Your task to perform on an android device: Clear the cart on costco.com. Search for razer blade on costco.com, select the first entry, and add it to the cart. Image 0: 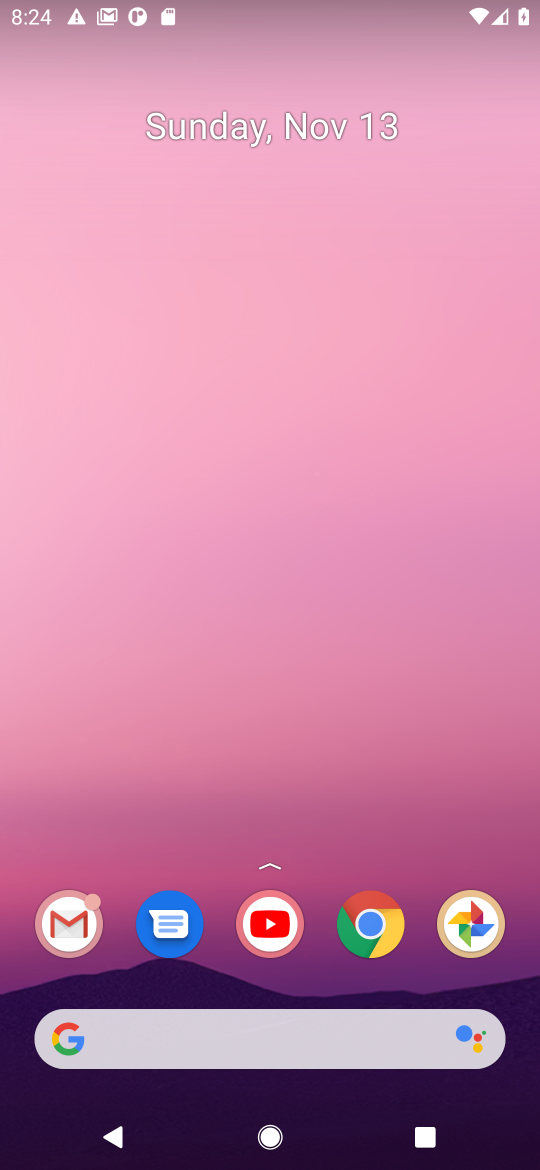
Step 0: click (378, 923)
Your task to perform on an android device: Clear the cart on costco.com. Search for razer blade on costco.com, select the first entry, and add it to the cart. Image 1: 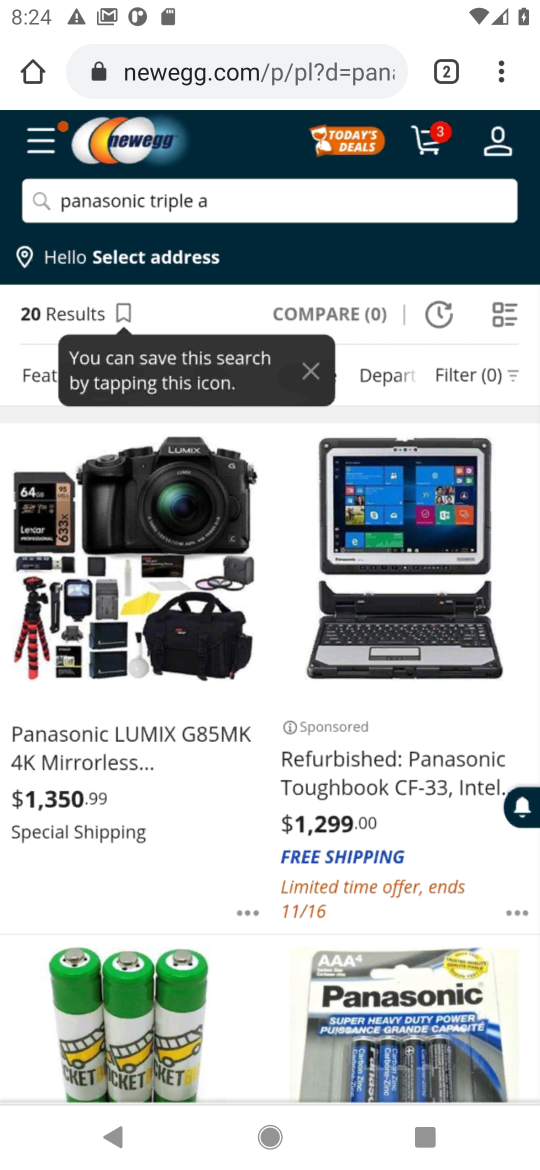
Step 1: click (253, 78)
Your task to perform on an android device: Clear the cart on costco.com. Search for razer blade on costco.com, select the first entry, and add it to the cart. Image 2: 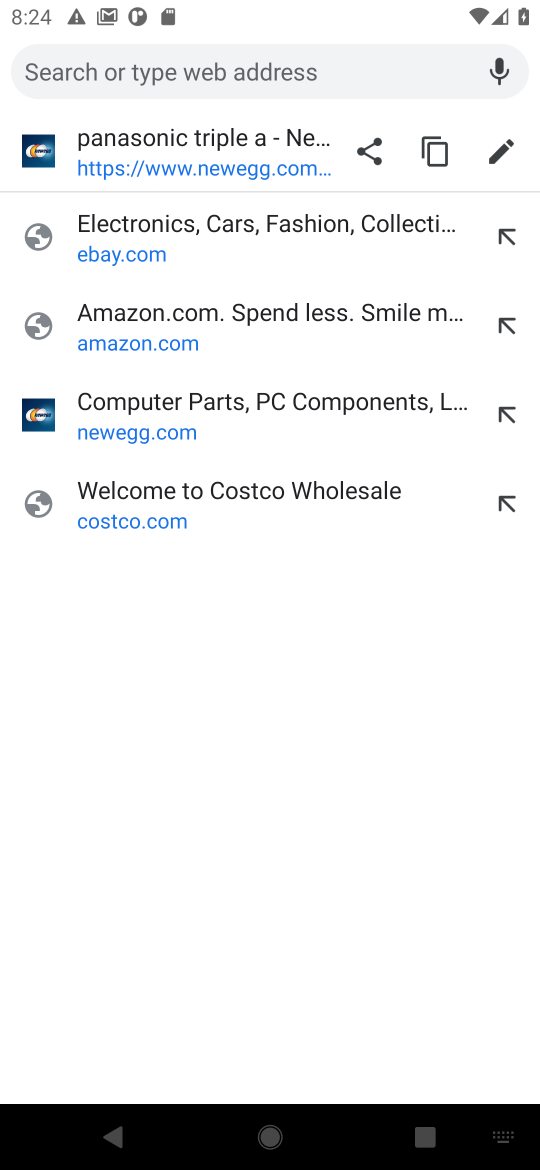
Step 2: click (134, 505)
Your task to perform on an android device: Clear the cart on costco.com. Search for razer blade on costco.com, select the first entry, and add it to the cart. Image 3: 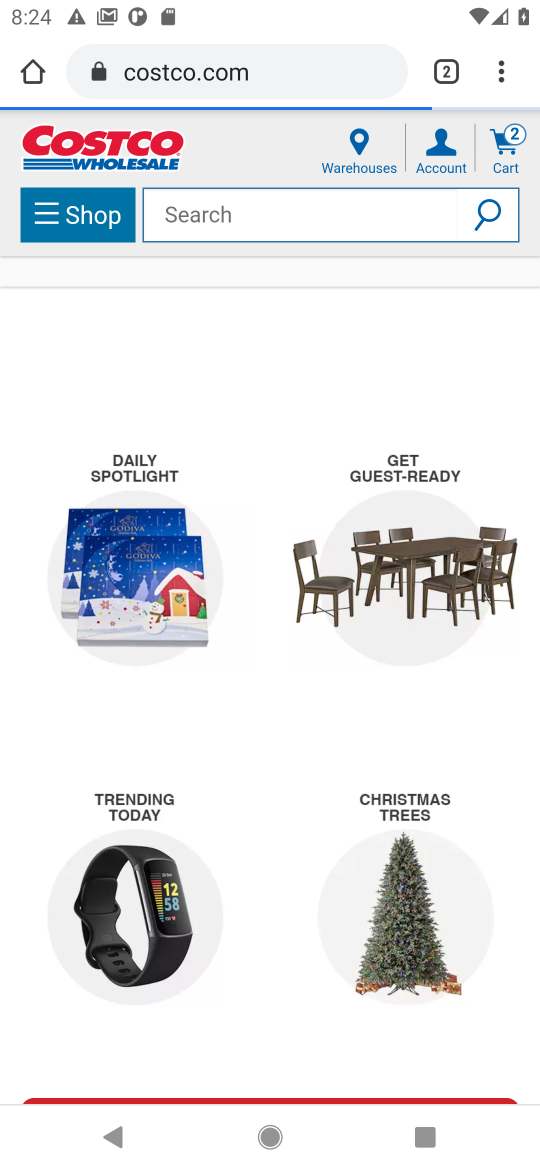
Step 3: click (505, 147)
Your task to perform on an android device: Clear the cart on costco.com. Search for razer blade on costco.com, select the first entry, and add it to the cart. Image 4: 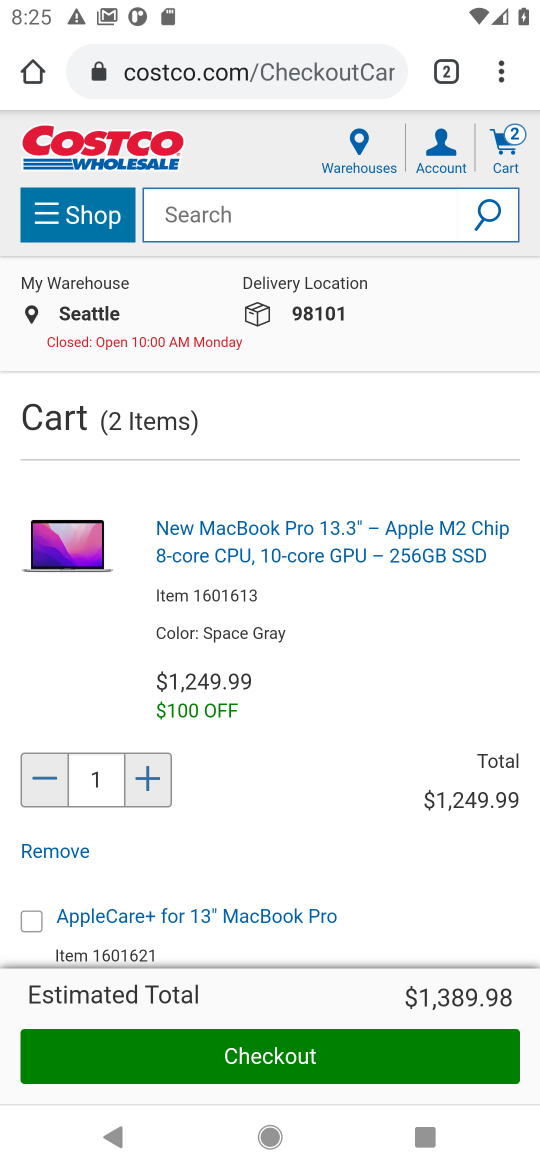
Step 4: click (43, 856)
Your task to perform on an android device: Clear the cart on costco.com. Search for razer blade on costco.com, select the first entry, and add it to the cart. Image 5: 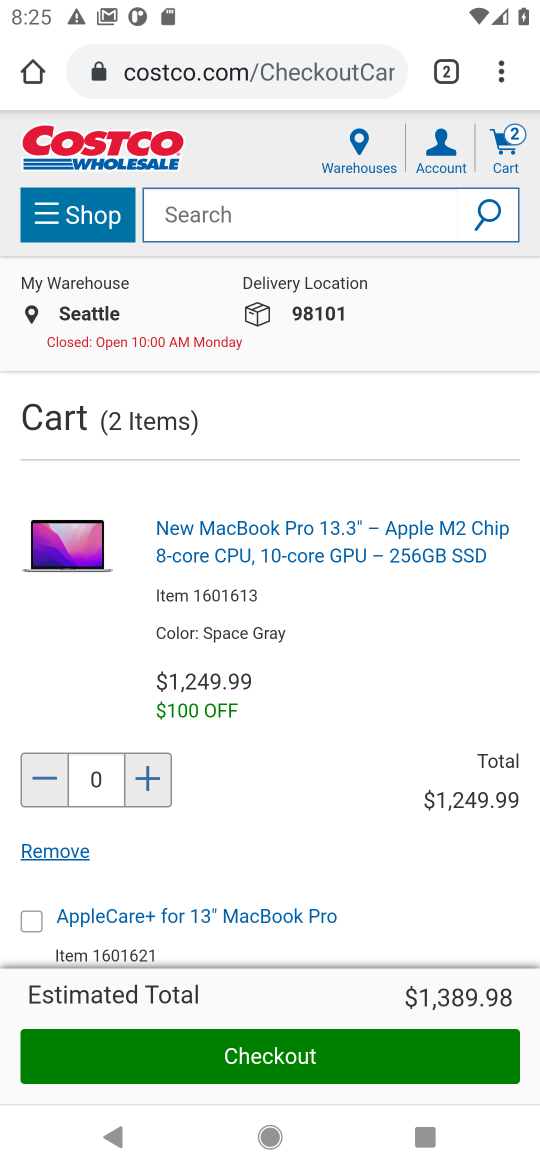
Step 5: drag from (200, 859) to (268, 229)
Your task to perform on an android device: Clear the cart on costco.com. Search for razer blade on costco.com, select the first entry, and add it to the cart. Image 6: 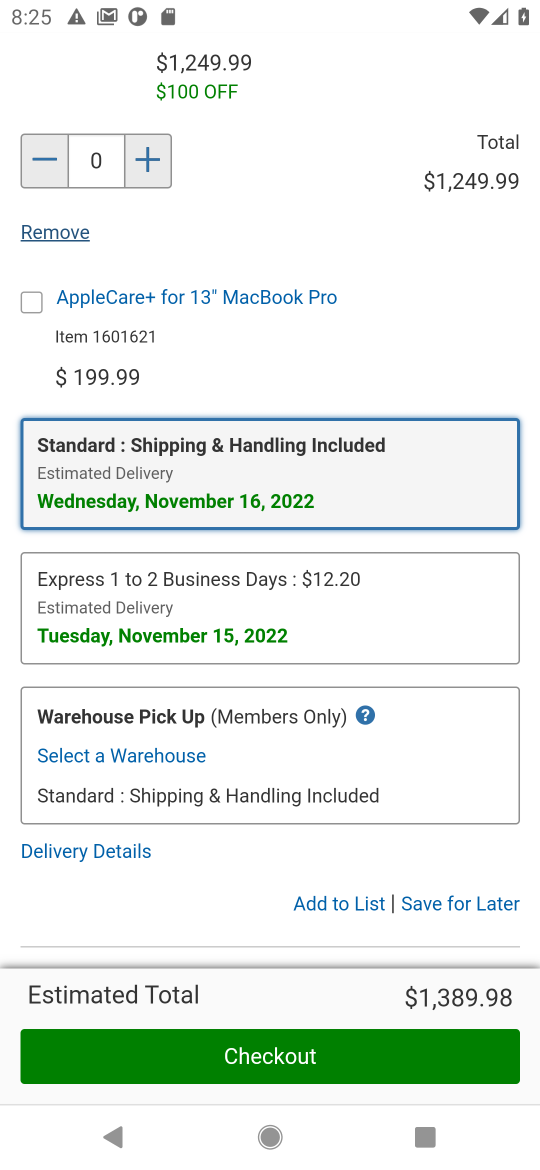
Step 6: drag from (286, 730) to (293, 418)
Your task to perform on an android device: Clear the cart on costco.com. Search for razer blade on costco.com, select the first entry, and add it to the cart. Image 7: 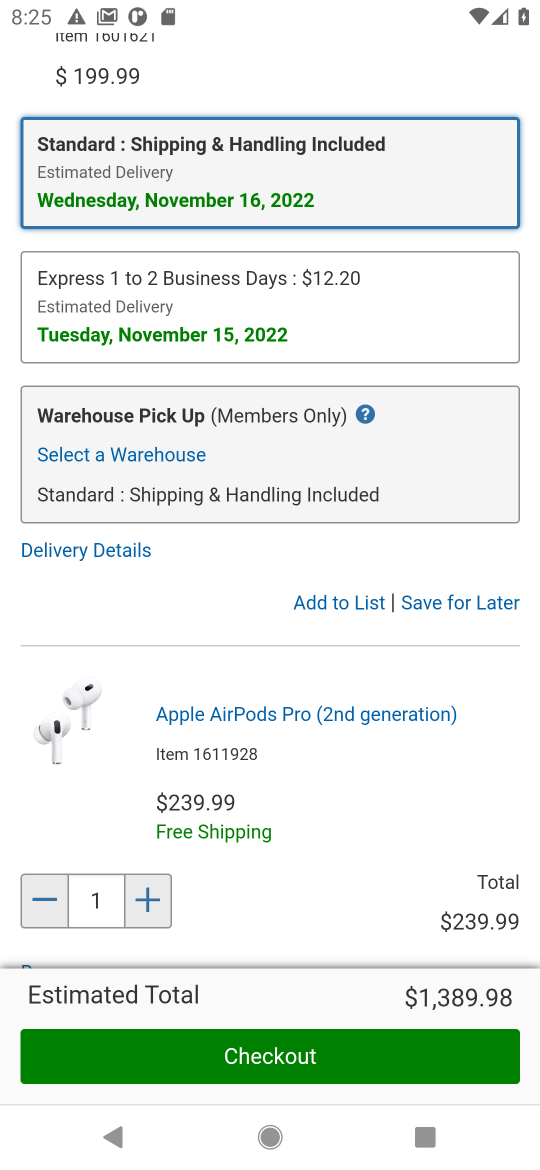
Step 7: click (463, 606)
Your task to perform on an android device: Clear the cart on costco.com. Search for razer blade on costco.com, select the first entry, and add it to the cart. Image 8: 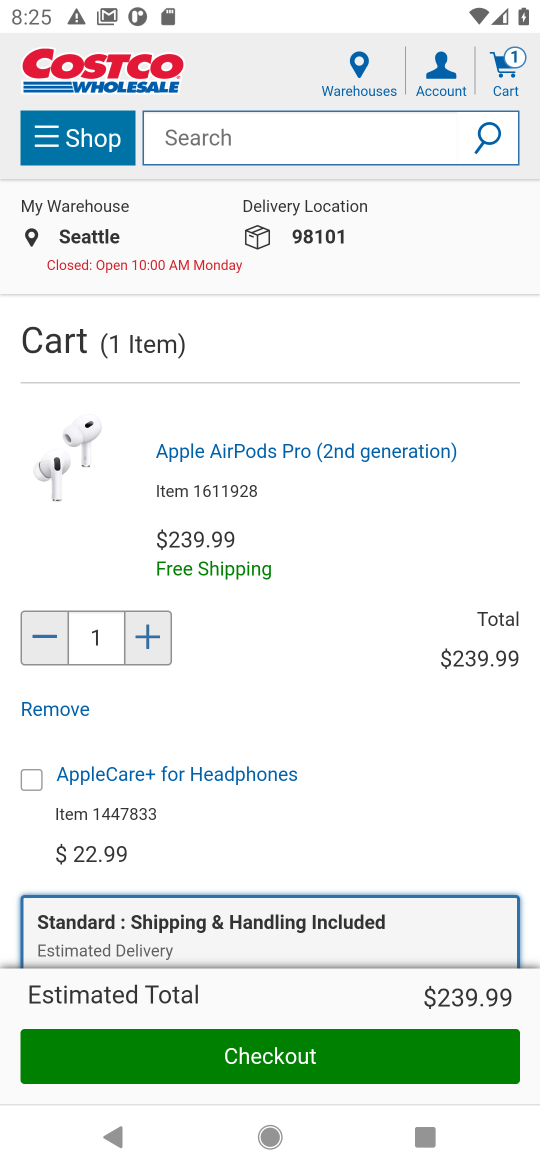
Step 8: drag from (377, 778) to (340, 335)
Your task to perform on an android device: Clear the cart on costco.com. Search for razer blade on costco.com, select the first entry, and add it to the cart. Image 9: 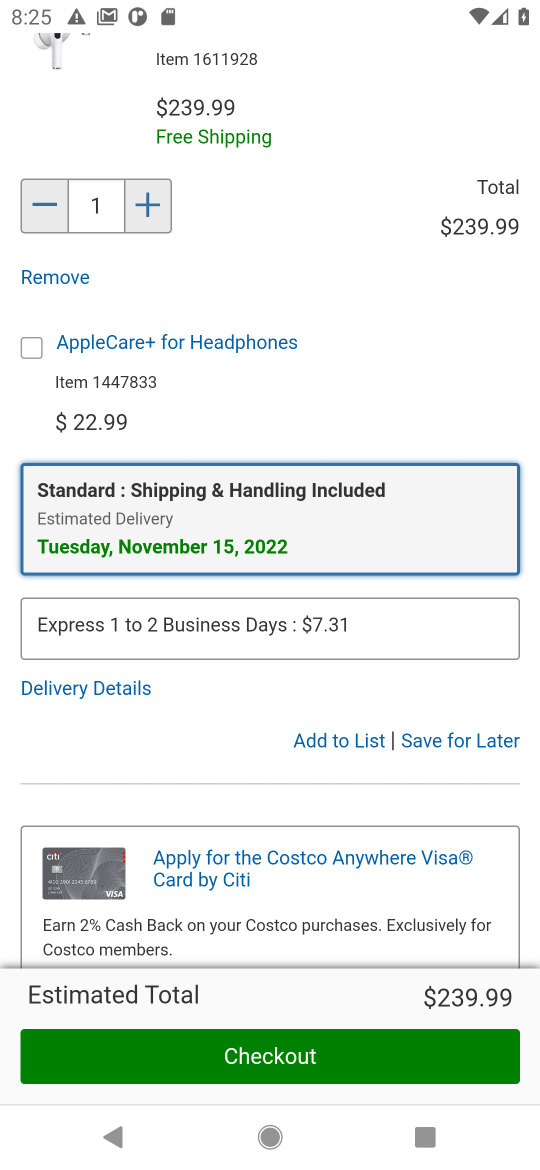
Step 9: click (459, 747)
Your task to perform on an android device: Clear the cart on costco.com. Search for razer blade on costco.com, select the first entry, and add it to the cart. Image 10: 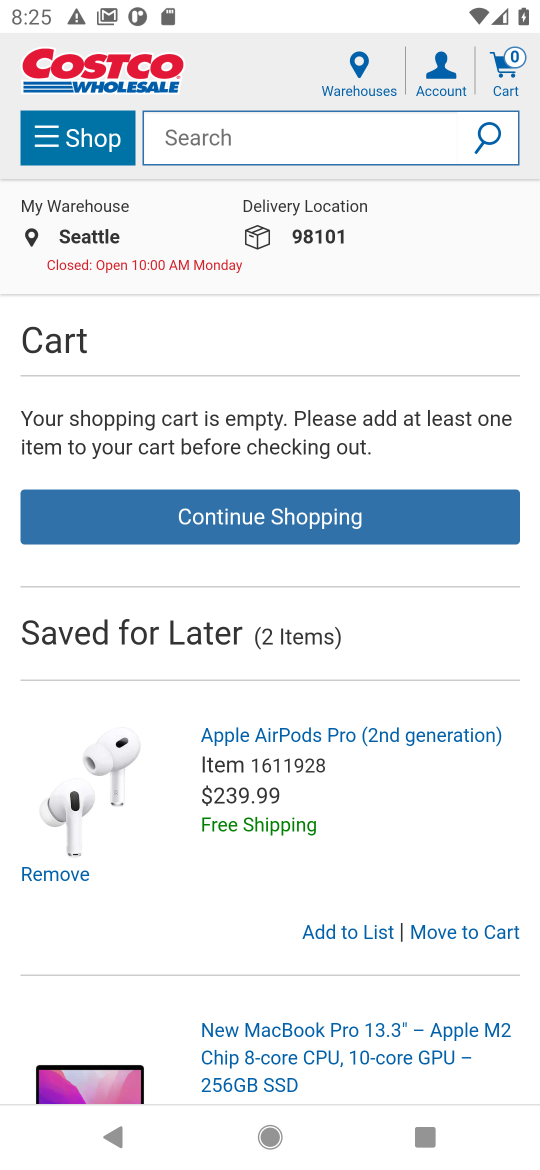
Step 10: click (254, 145)
Your task to perform on an android device: Clear the cart on costco.com. Search for razer blade on costco.com, select the first entry, and add it to the cart. Image 11: 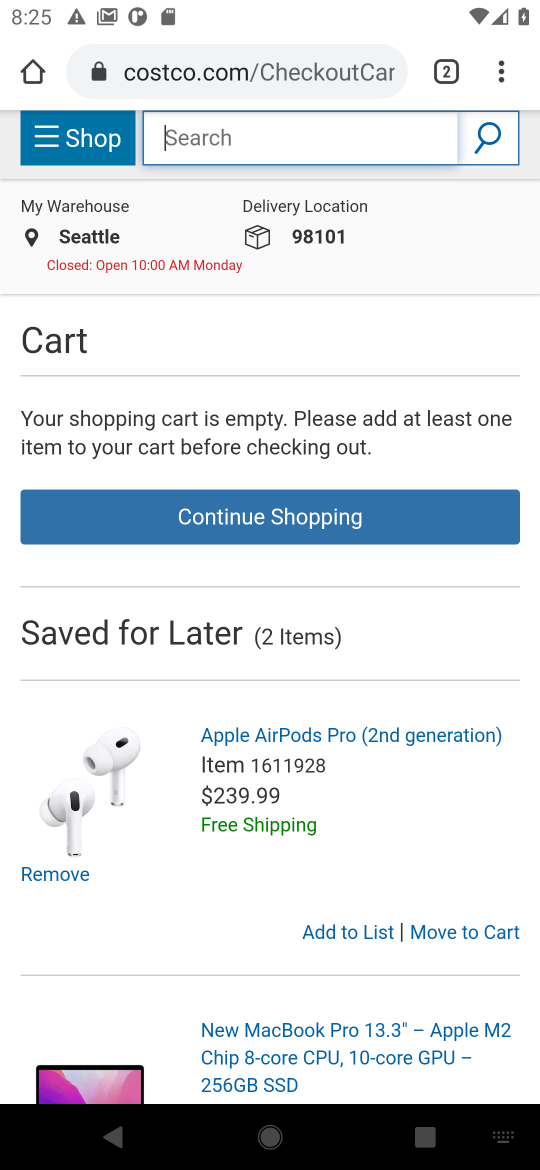
Step 11: type "razer blade"
Your task to perform on an android device: Clear the cart on costco.com. Search for razer blade on costco.com, select the first entry, and add it to the cart. Image 12: 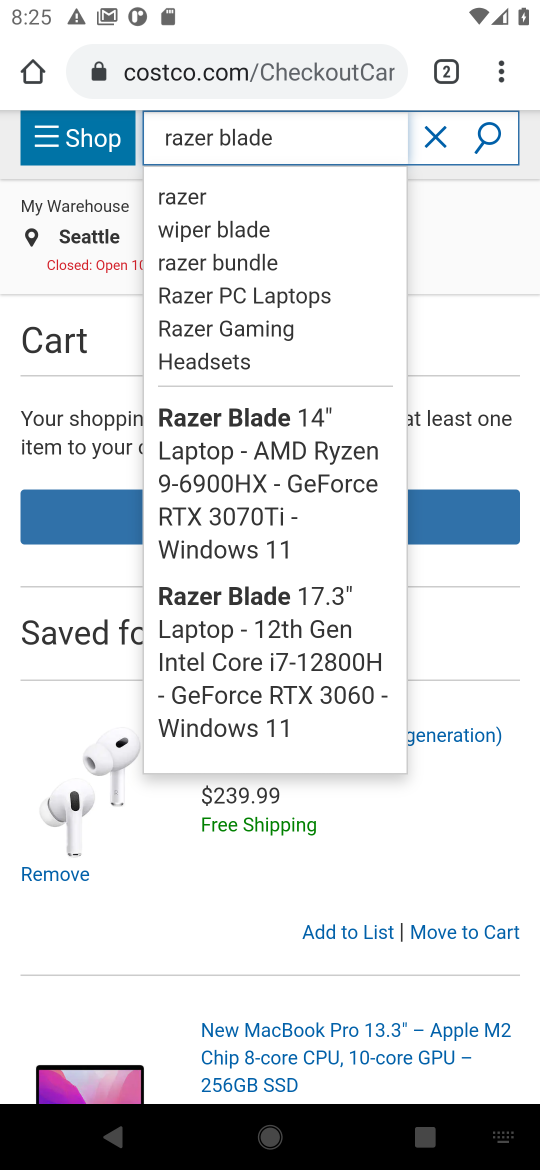
Step 12: click (486, 143)
Your task to perform on an android device: Clear the cart on costco.com. Search for razer blade on costco.com, select the first entry, and add it to the cart. Image 13: 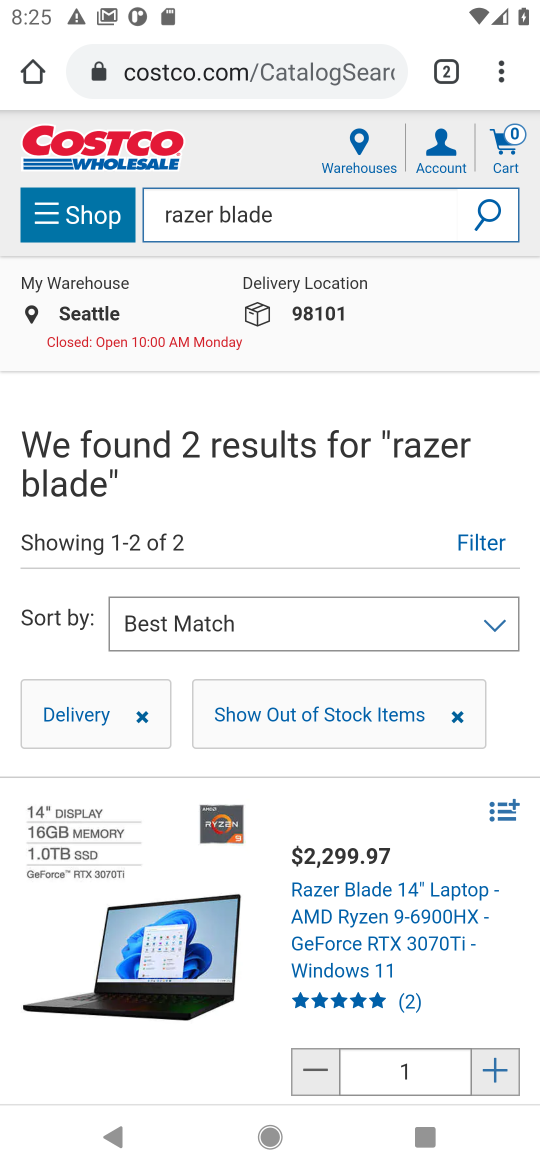
Step 13: click (193, 938)
Your task to perform on an android device: Clear the cart on costco.com. Search for razer blade on costco.com, select the first entry, and add it to the cart. Image 14: 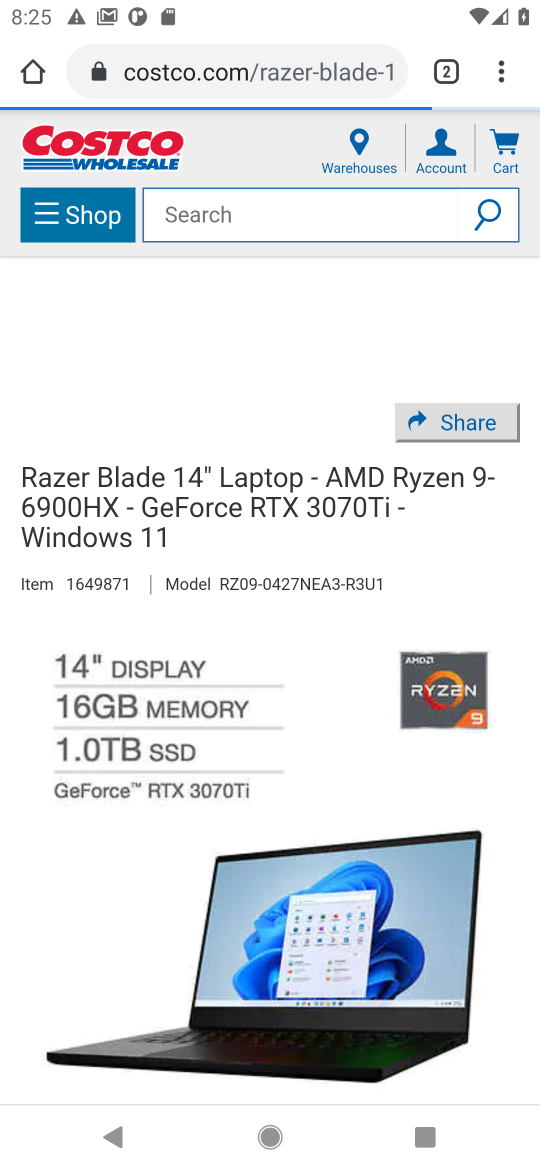
Step 14: drag from (193, 935) to (204, 430)
Your task to perform on an android device: Clear the cart on costco.com. Search for razer blade on costco.com, select the first entry, and add it to the cart. Image 15: 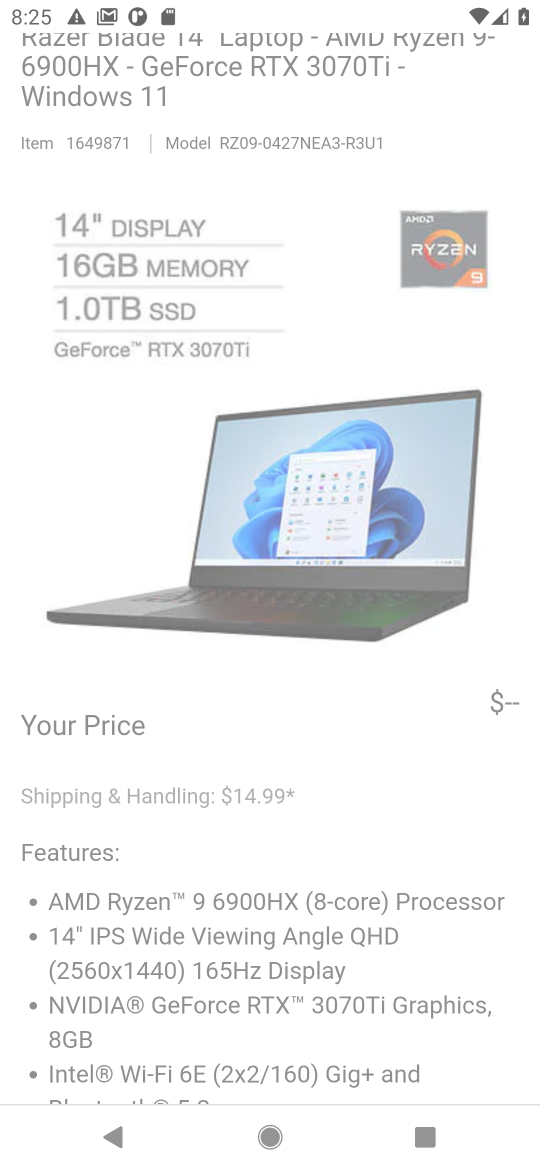
Step 15: drag from (222, 908) to (197, 417)
Your task to perform on an android device: Clear the cart on costco.com. Search for razer blade on costco.com, select the first entry, and add it to the cart. Image 16: 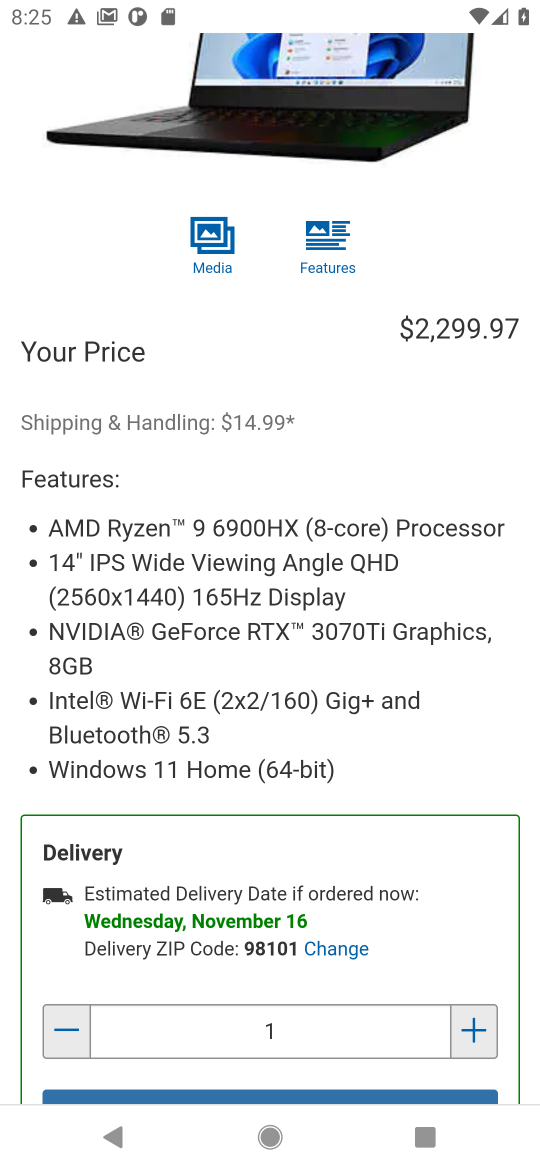
Step 16: drag from (246, 1000) to (250, 645)
Your task to perform on an android device: Clear the cart on costco.com. Search for razer blade on costco.com, select the first entry, and add it to the cart. Image 17: 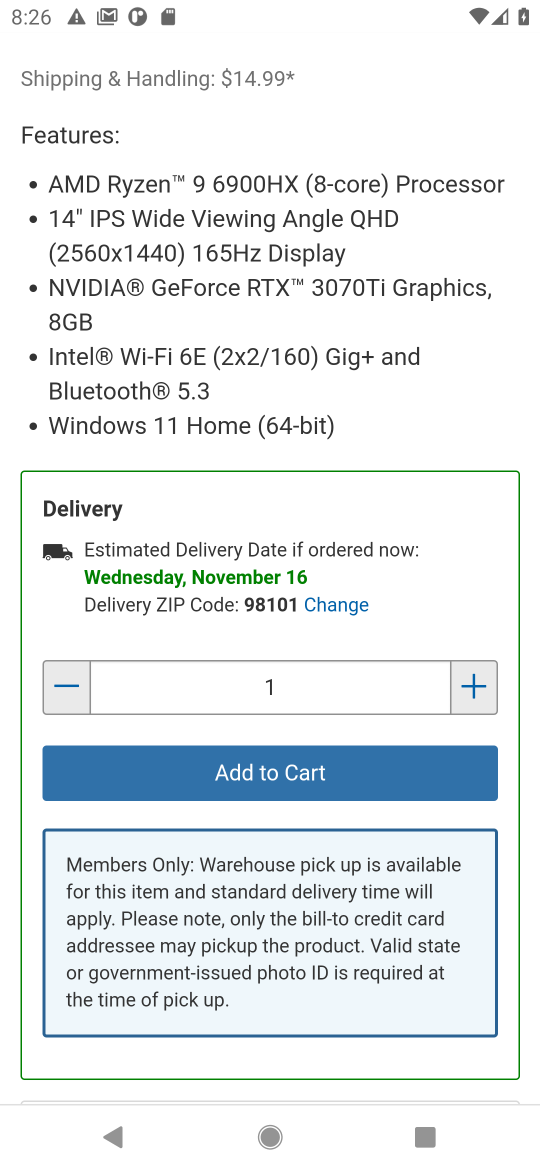
Step 17: click (247, 779)
Your task to perform on an android device: Clear the cart on costco.com. Search for razer blade on costco.com, select the first entry, and add it to the cart. Image 18: 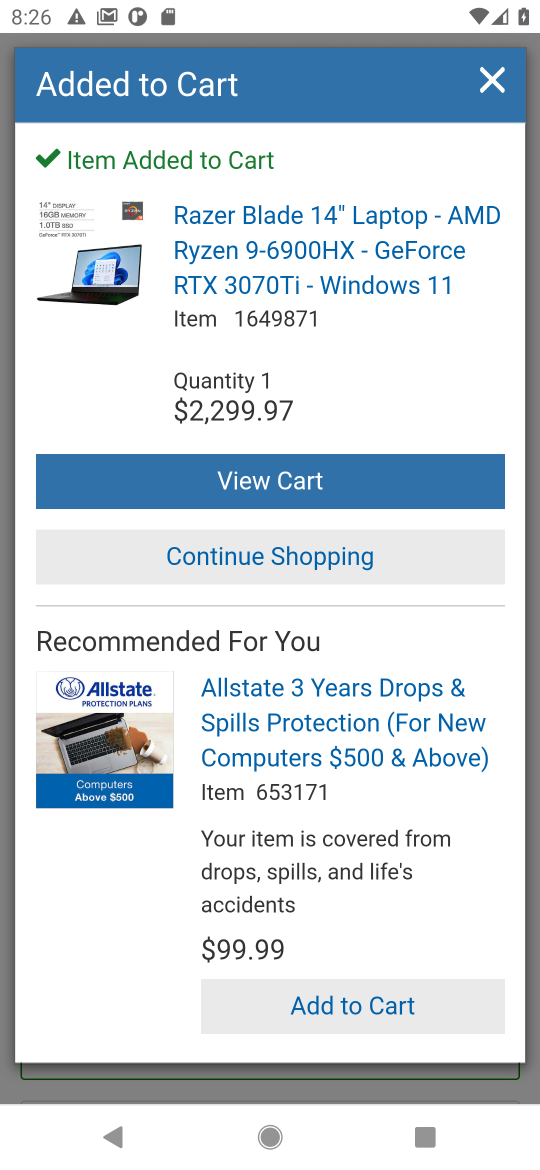
Step 18: task complete